Your task to perform on an android device: Open network settings Image 0: 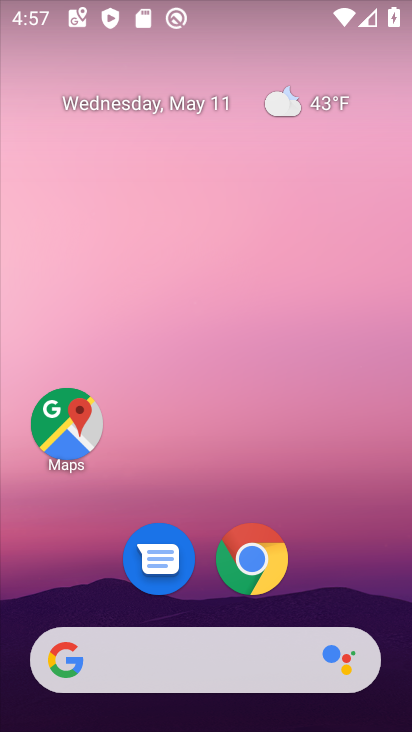
Step 0: drag from (311, 364) to (311, 69)
Your task to perform on an android device: Open network settings Image 1: 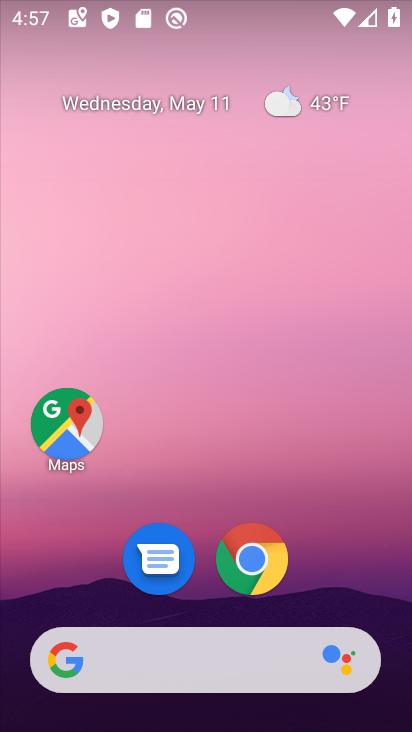
Step 1: drag from (298, 562) to (298, 66)
Your task to perform on an android device: Open network settings Image 2: 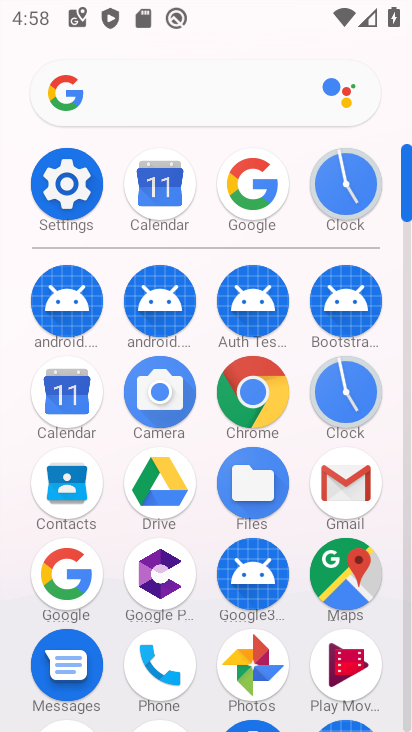
Step 2: click (78, 199)
Your task to perform on an android device: Open network settings Image 3: 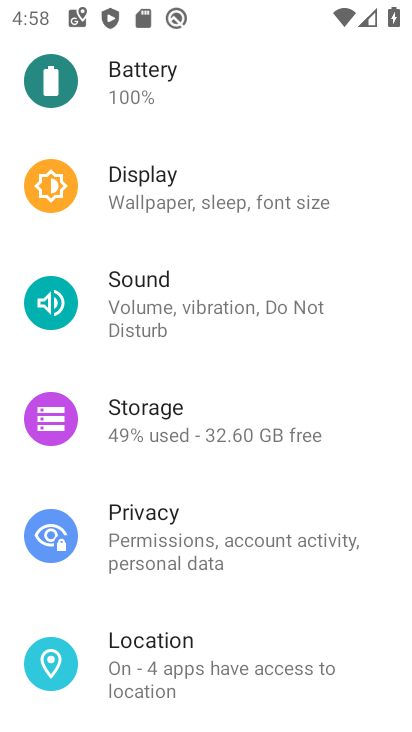
Step 3: drag from (230, 156) to (235, 581)
Your task to perform on an android device: Open network settings Image 4: 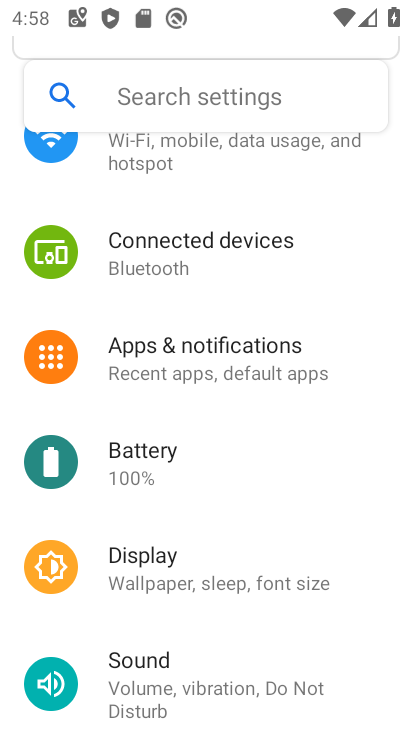
Step 4: click (148, 165)
Your task to perform on an android device: Open network settings Image 5: 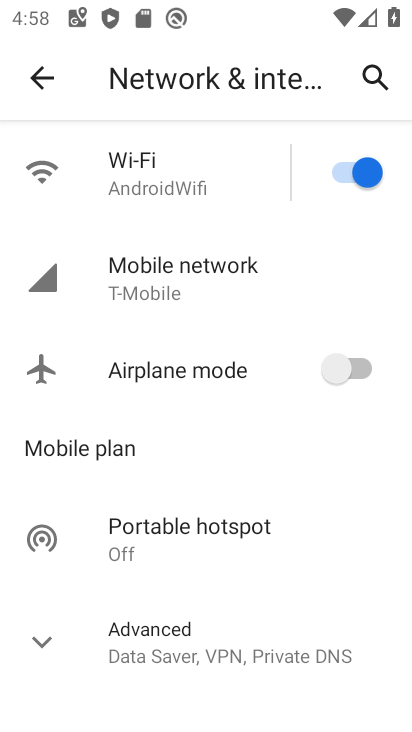
Step 5: task complete